Your task to perform on an android device: Open accessibility settings Image 0: 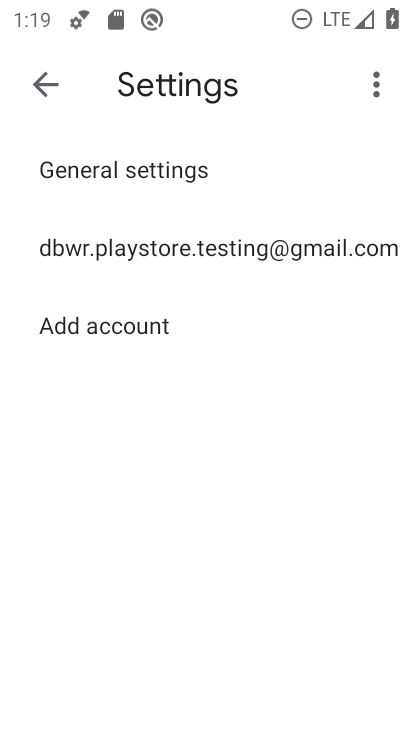
Step 0: press home button
Your task to perform on an android device: Open accessibility settings Image 1: 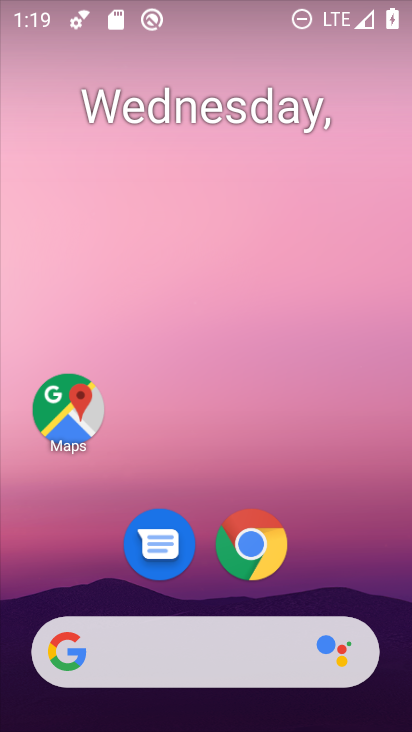
Step 1: drag from (317, 593) to (336, 54)
Your task to perform on an android device: Open accessibility settings Image 2: 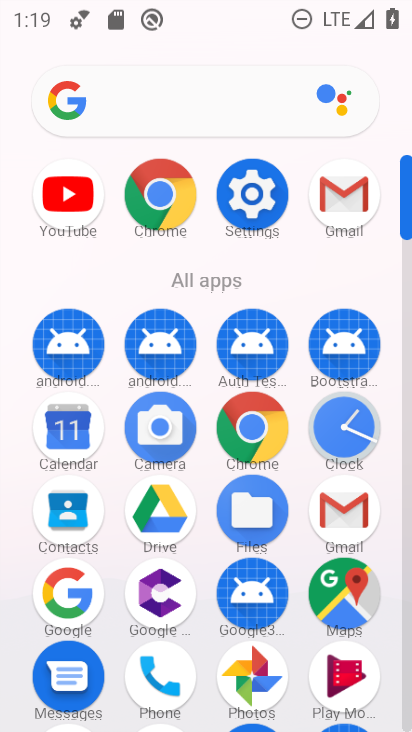
Step 2: click (257, 189)
Your task to perform on an android device: Open accessibility settings Image 3: 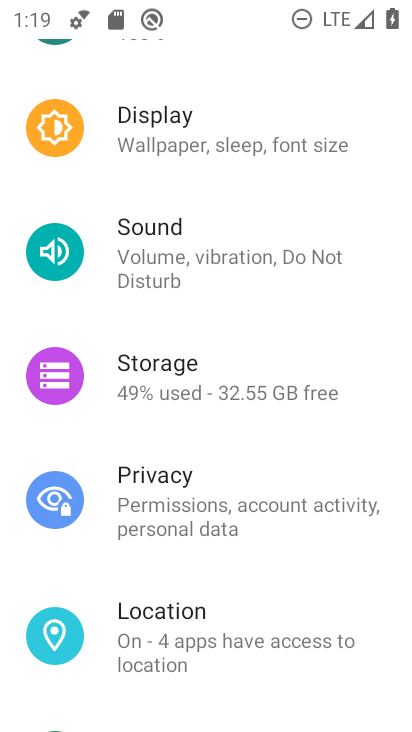
Step 3: drag from (189, 598) to (195, 222)
Your task to perform on an android device: Open accessibility settings Image 4: 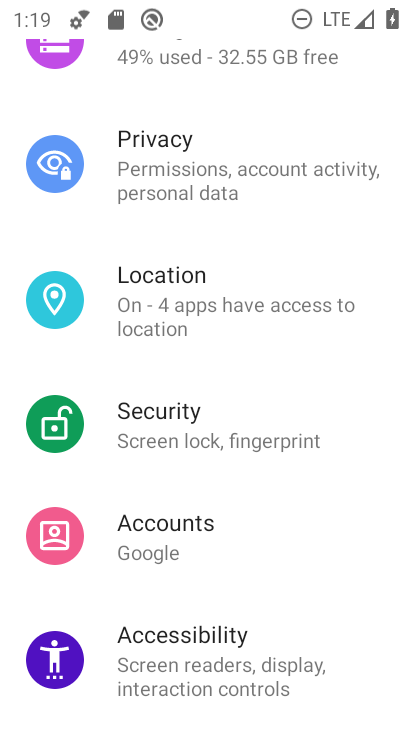
Step 4: click (185, 639)
Your task to perform on an android device: Open accessibility settings Image 5: 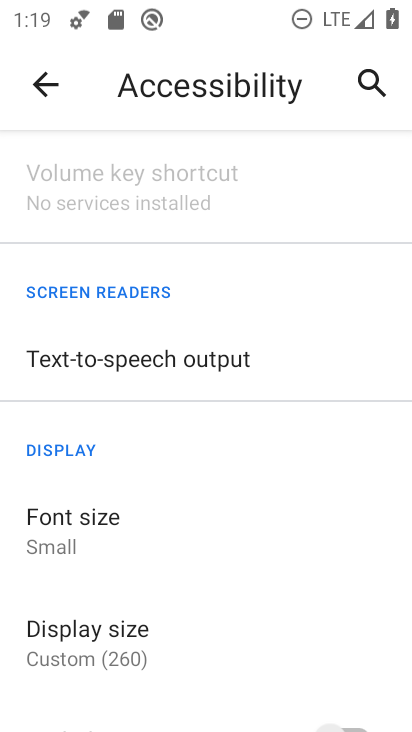
Step 5: task complete